Your task to perform on an android device: see creations saved in the google photos Image 0: 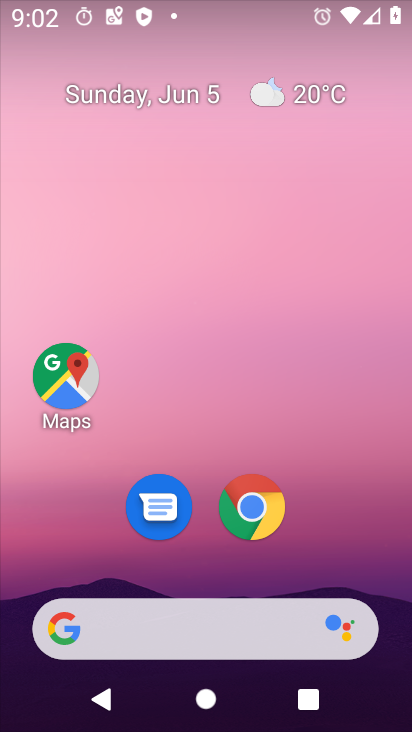
Step 0: drag from (333, 546) to (242, 6)
Your task to perform on an android device: see creations saved in the google photos Image 1: 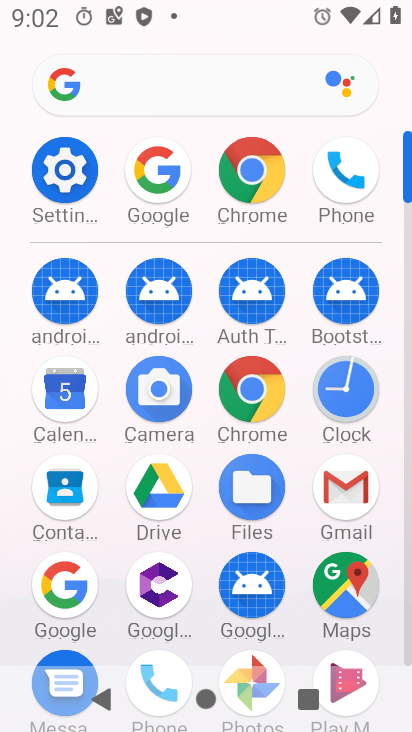
Step 1: drag from (14, 605) to (9, 295)
Your task to perform on an android device: see creations saved in the google photos Image 2: 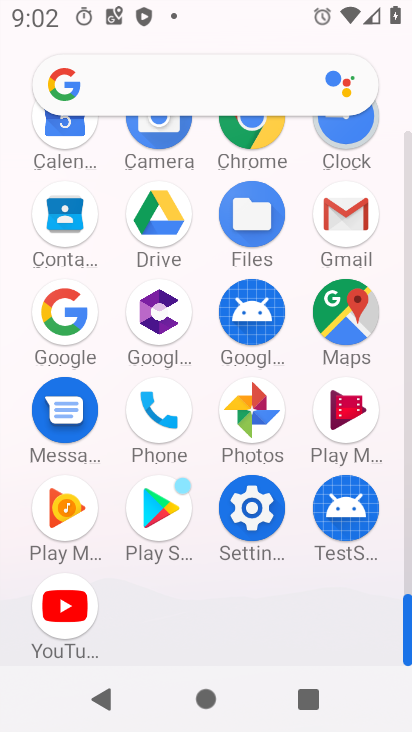
Step 2: click (251, 411)
Your task to perform on an android device: see creations saved in the google photos Image 3: 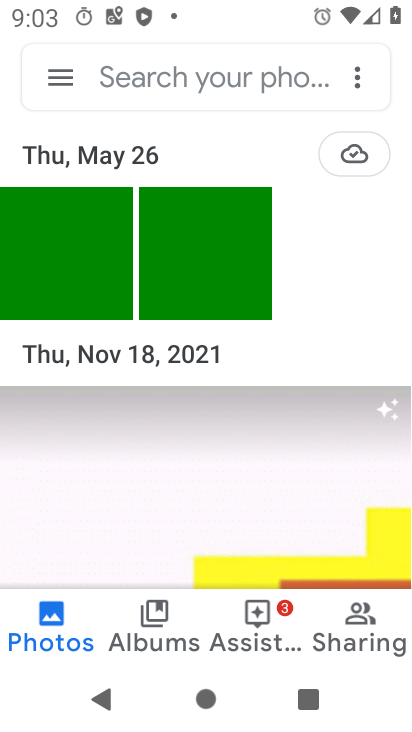
Step 3: click (58, 75)
Your task to perform on an android device: see creations saved in the google photos Image 4: 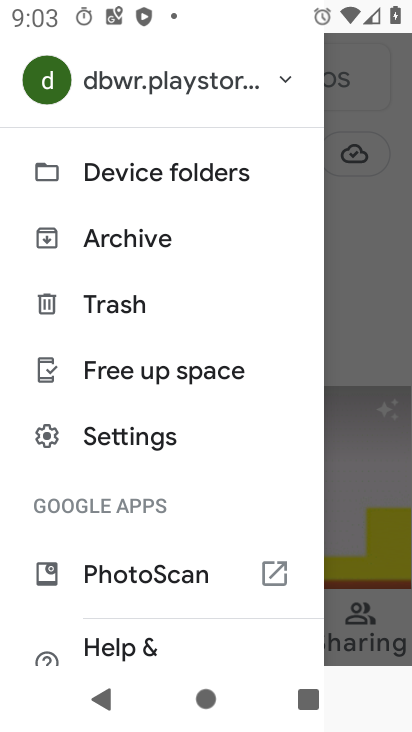
Step 4: click (359, 243)
Your task to perform on an android device: see creations saved in the google photos Image 5: 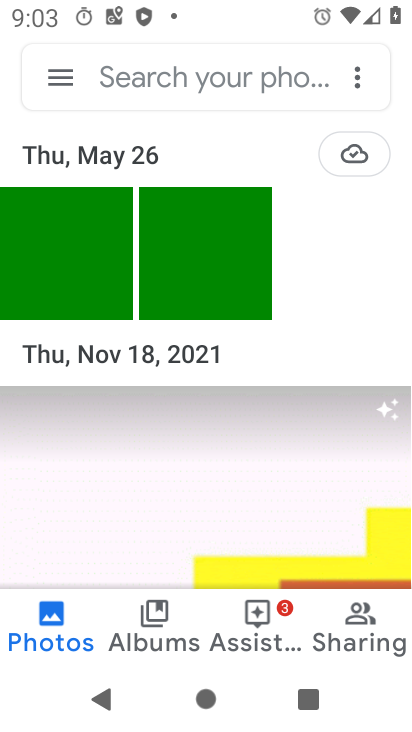
Step 5: task complete